Your task to perform on an android device: visit the assistant section in the google photos Image 0: 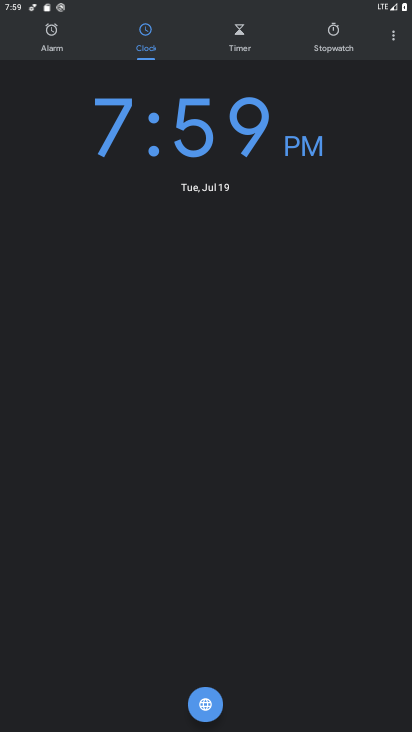
Step 0: press home button
Your task to perform on an android device: visit the assistant section in the google photos Image 1: 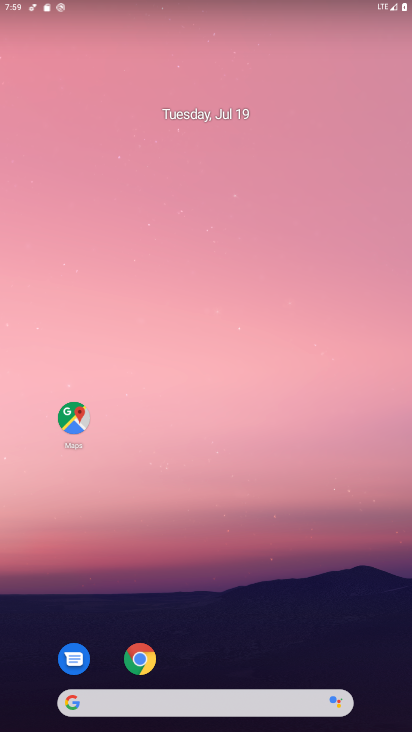
Step 1: drag from (193, 649) to (274, 4)
Your task to perform on an android device: visit the assistant section in the google photos Image 2: 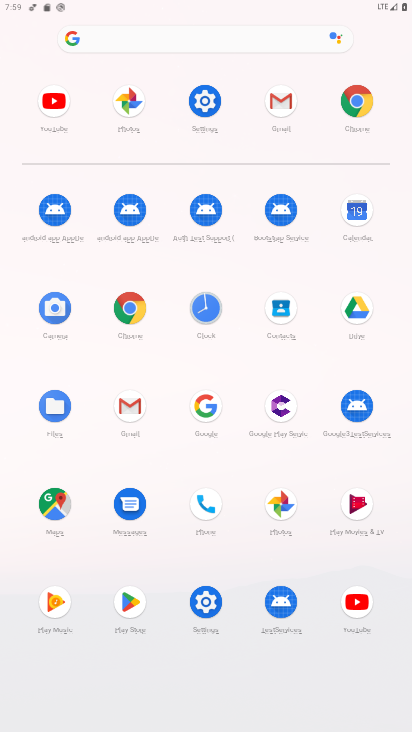
Step 2: click (286, 518)
Your task to perform on an android device: visit the assistant section in the google photos Image 3: 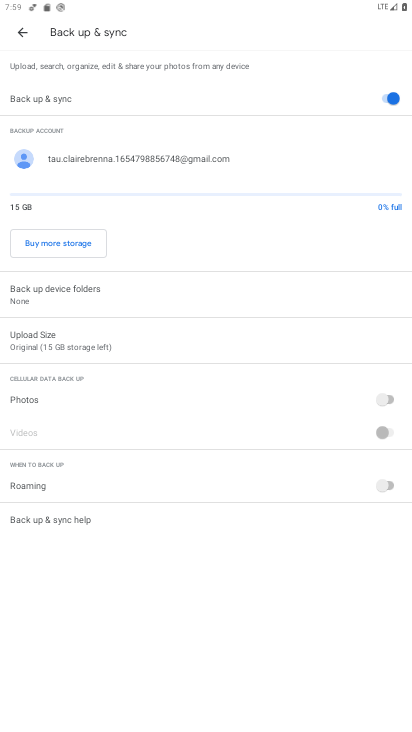
Step 3: click (28, 29)
Your task to perform on an android device: visit the assistant section in the google photos Image 4: 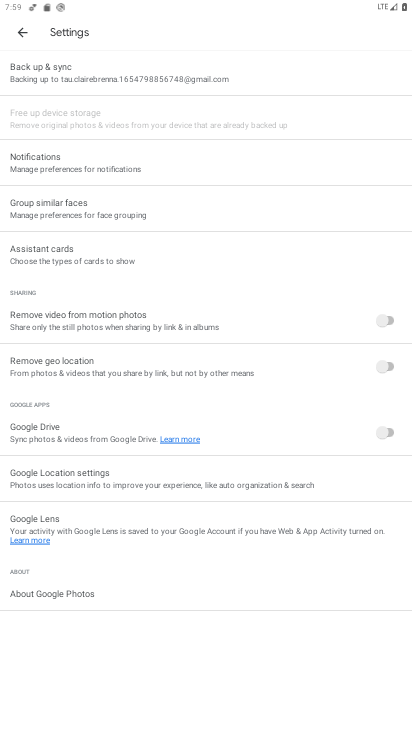
Step 4: click (22, 27)
Your task to perform on an android device: visit the assistant section in the google photos Image 5: 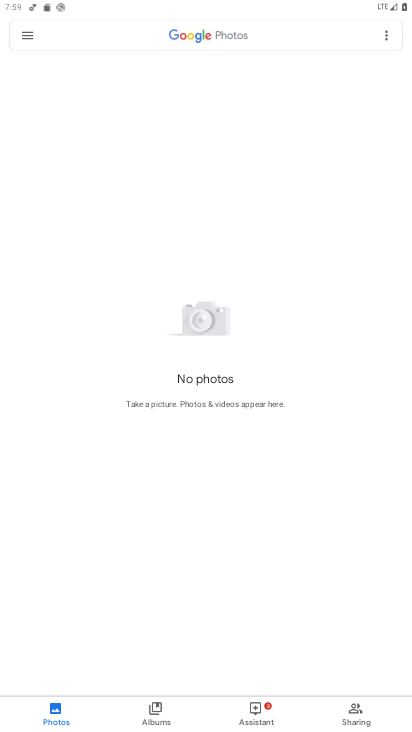
Step 5: click (264, 721)
Your task to perform on an android device: visit the assistant section in the google photos Image 6: 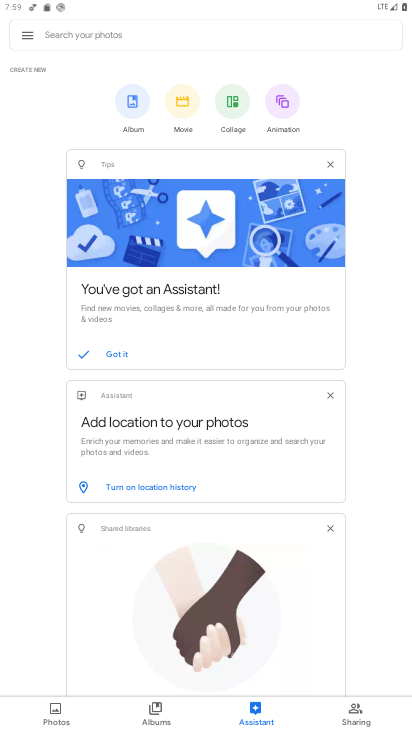
Step 6: task complete